Your task to perform on an android device: search for starred emails in the gmail app Image 0: 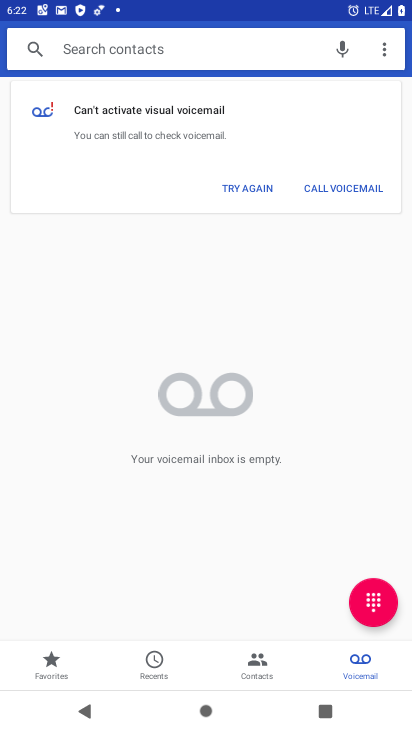
Step 0: press home button
Your task to perform on an android device: search for starred emails in the gmail app Image 1: 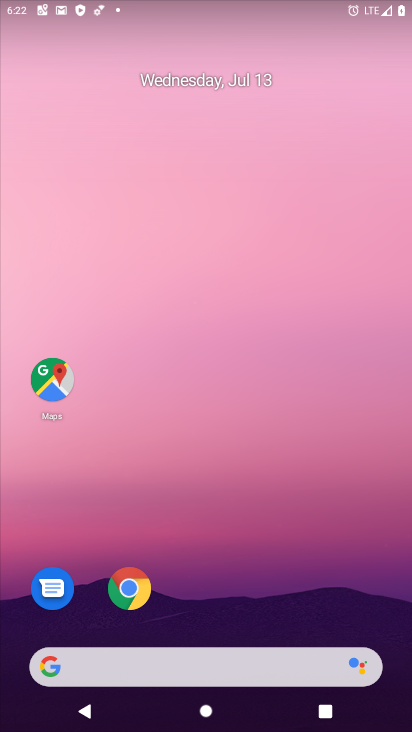
Step 1: drag from (171, 625) to (203, 46)
Your task to perform on an android device: search for starred emails in the gmail app Image 2: 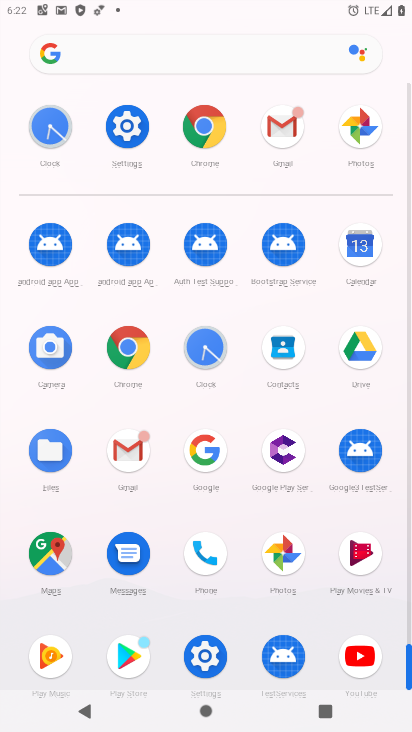
Step 2: click (282, 134)
Your task to perform on an android device: search for starred emails in the gmail app Image 3: 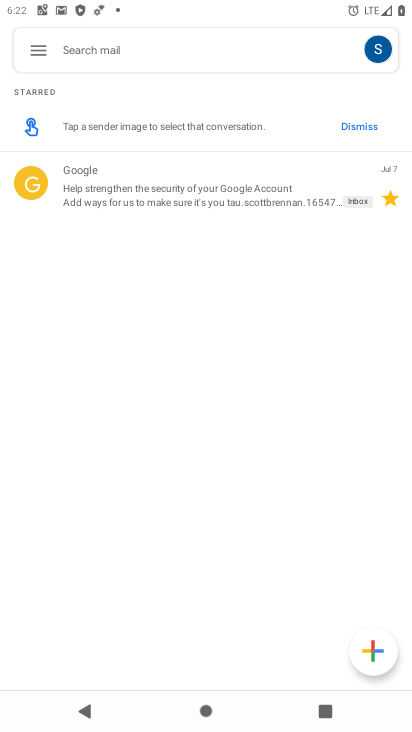
Step 3: click (35, 45)
Your task to perform on an android device: search for starred emails in the gmail app Image 4: 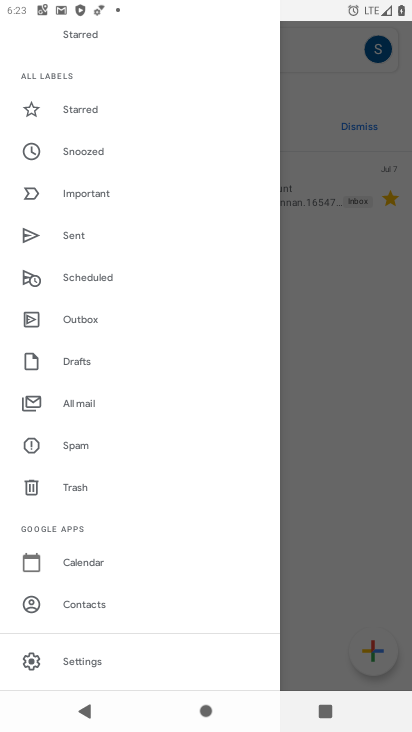
Step 4: click (74, 102)
Your task to perform on an android device: search for starred emails in the gmail app Image 5: 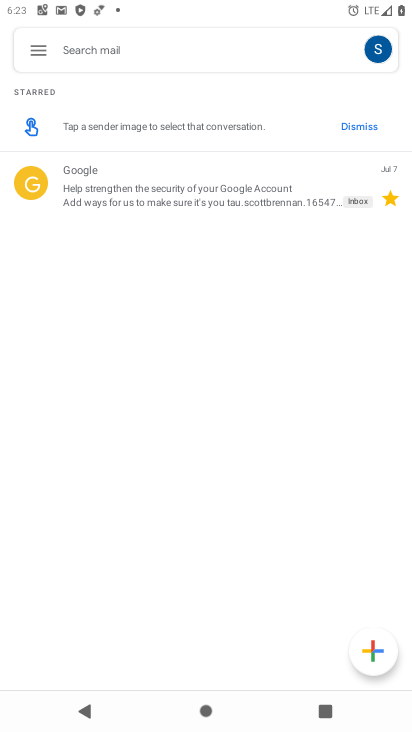
Step 5: task complete